Your task to perform on an android device: Find coffee shops on Maps Image 0: 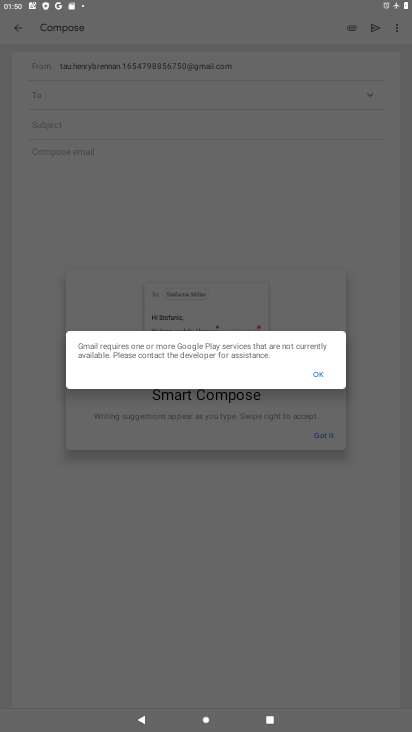
Step 0: press home button
Your task to perform on an android device: Find coffee shops on Maps Image 1: 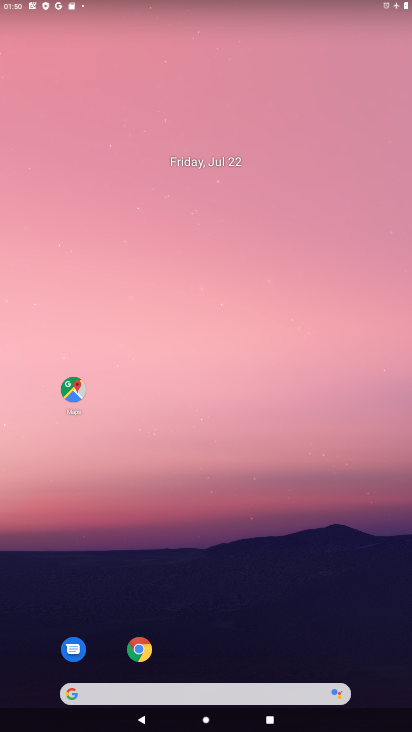
Step 1: drag from (306, 594) to (263, 75)
Your task to perform on an android device: Find coffee shops on Maps Image 2: 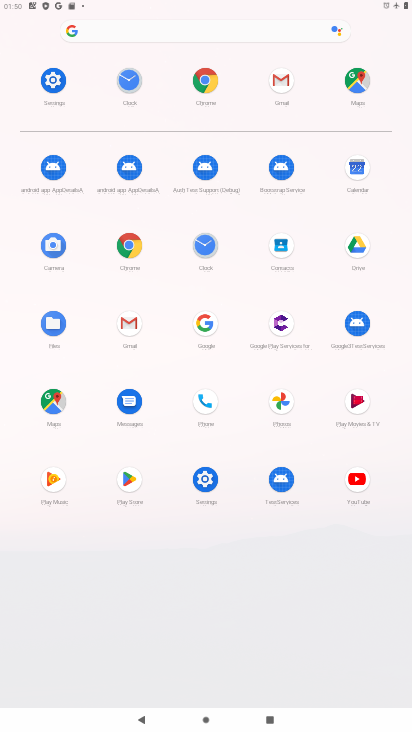
Step 2: click (59, 400)
Your task to perform on an android device: Find coffee shops on Maps Image 3: 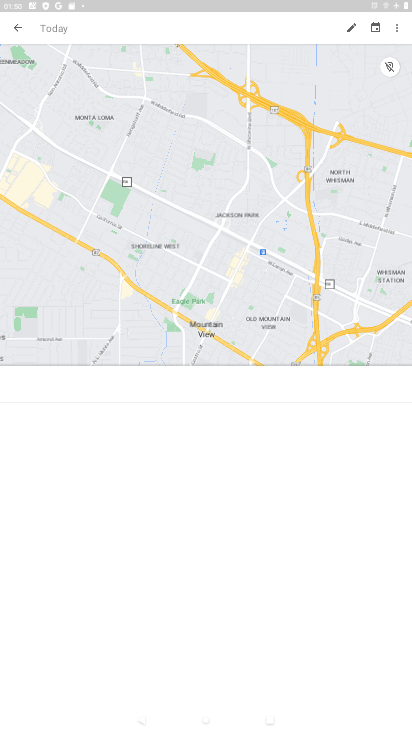
Step 3: click (17, 19)
Your task to perform on an android device: Find coffee shops on Maps Image 4: 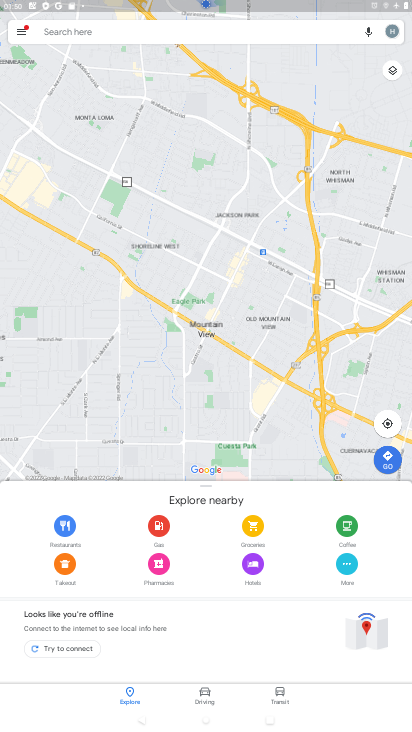
Step 4: click (165, 26)
Your task to perform on an android device: Find coffee shops on Maps Image 5: 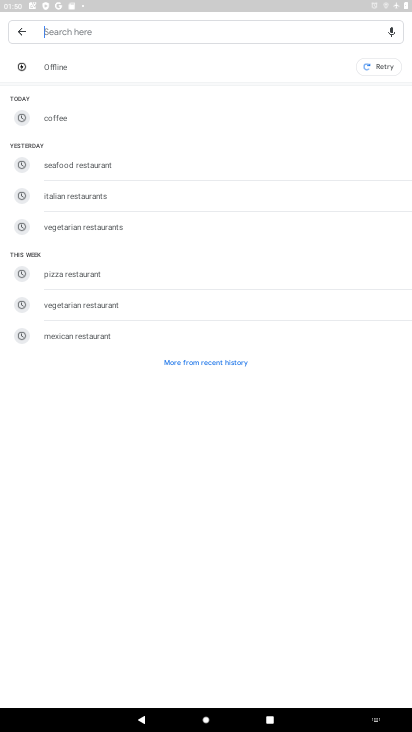
Step 5: click (65, 117)
Your task to perform on an android device: Find coffee shops on Maps Image 6: 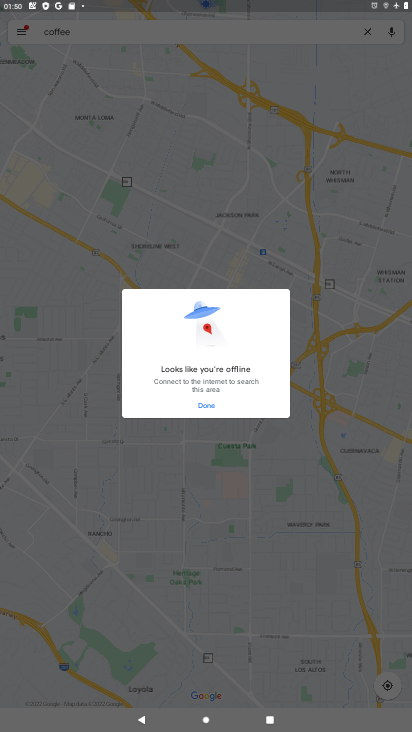
Step 6: task complete